Your task to perform on an android device: open chrome privacy settings Image 0: 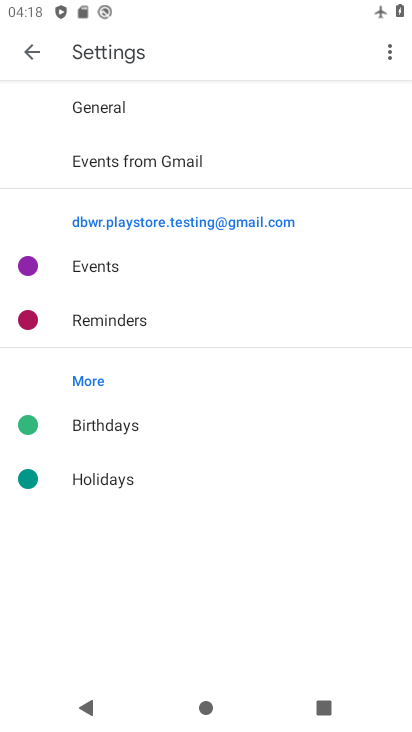
Step 0: press home button
Your task to perform on an android device: open chrome privacy settings Image 1: 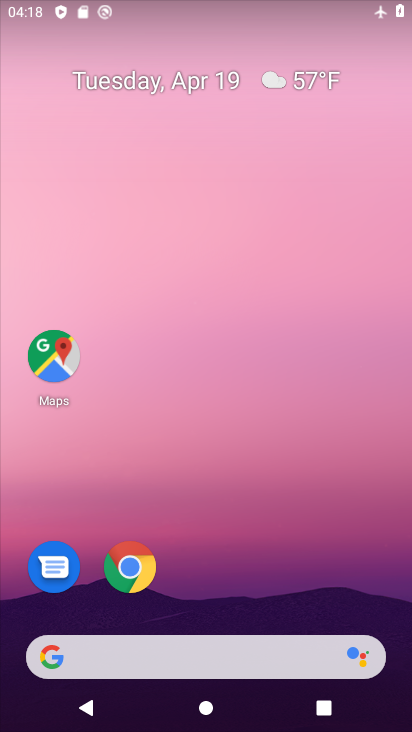
Step 1: drag from (380, 594) to (353, 163)
Your task to perform on an android device: open chrome privacy settings Image 2: 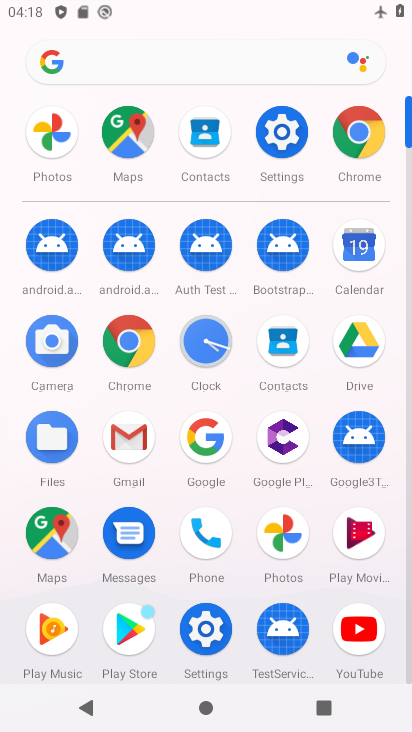
Step 2: click (132, 349)
Your task to perform on an android device: open chrome privacy settings Image 3: 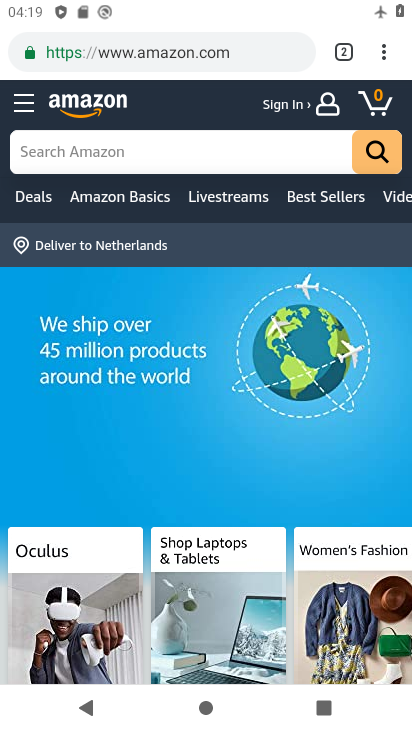
Step 3: click (387, 54)
Your task to perform on an android device: open chrome privacy settings Image 4: 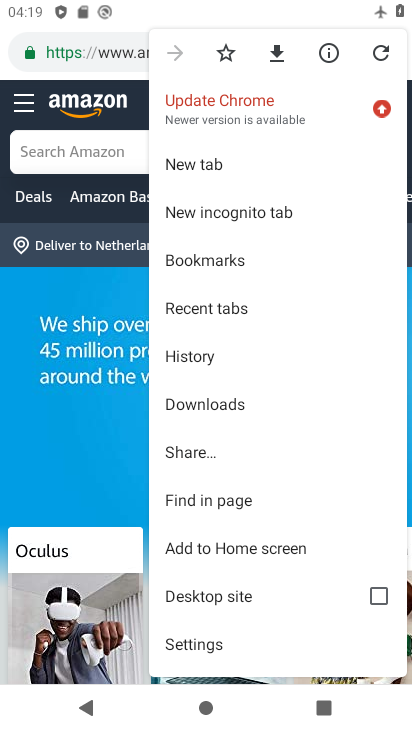
Step 4: drag from (355, 476) to (344, 349)
Your task to perform on an android device: open chrome privacy settings Image 5: 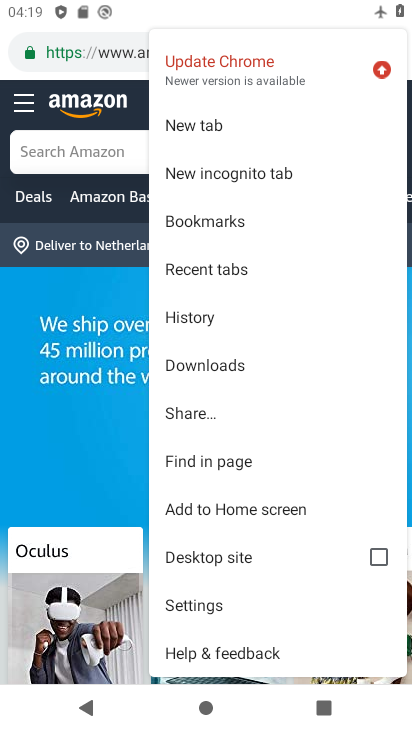
Step 5: click (227, 601)
Your task to perform on an android device: open chrome privacy settings Image 6: 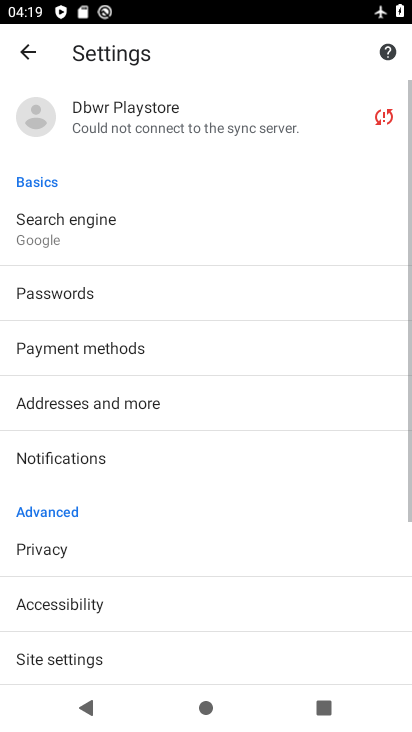
Step 6: drag from (293, 585) to (301, 509)
Your task to perform on an android device: open chrome privacy settings Image 7: 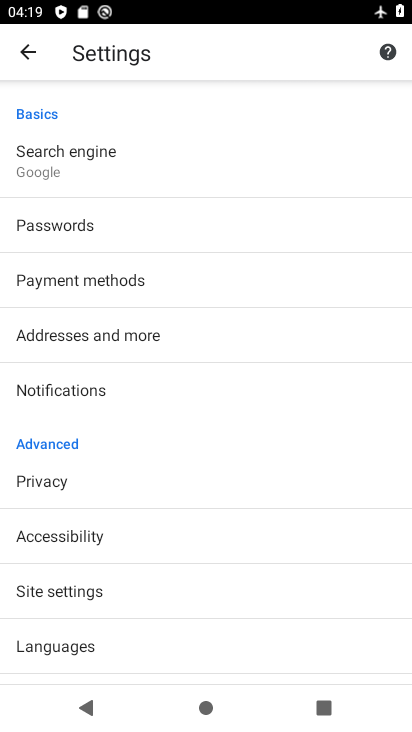
Step 7: drag from (309, 597) to (321, 479)
Your task to perform on an android device: open chrome privacy settings Image 8: 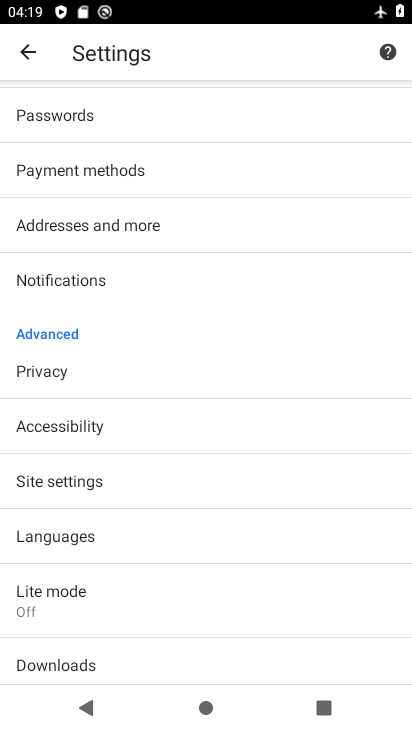
Step 8: drag from (323, 593) to (337, 445)
Your task to perform on an android device: open chrome privacy settings Image 9: 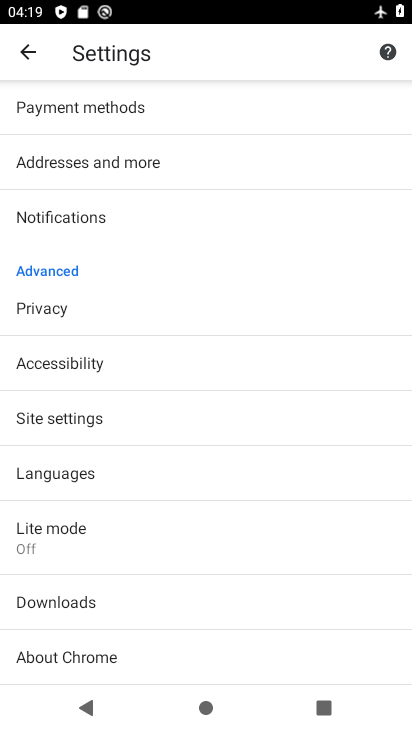
Step 9: drag from (344, 642) to (347, 470)
Your task to perform on an android device: open chrome privacy settings Image 10: 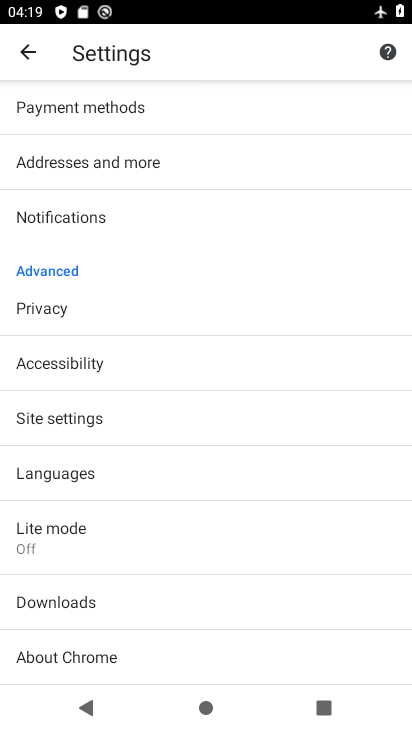
Step 10: drag from (358, 346) to (362, 424)
Your task to perform on an android device: open chrome privacy settings Image 11: 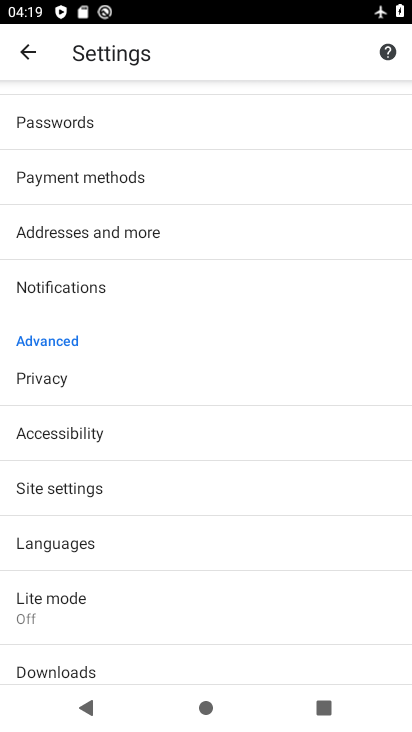
Step 11: drag from (344, 335) to (345, 445)
Your task to perform on an android device: open chrome privacy settings Image 12: 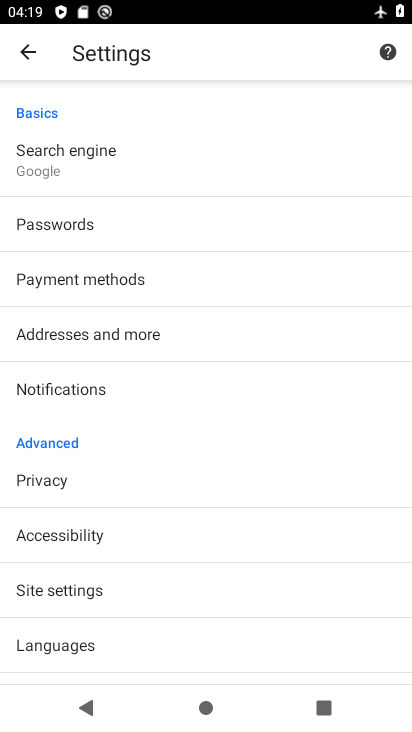
Step 12: drag from (345, 331) to (351, 429)
Your task to perform on an android device: open chrome privacy settings Image 13: 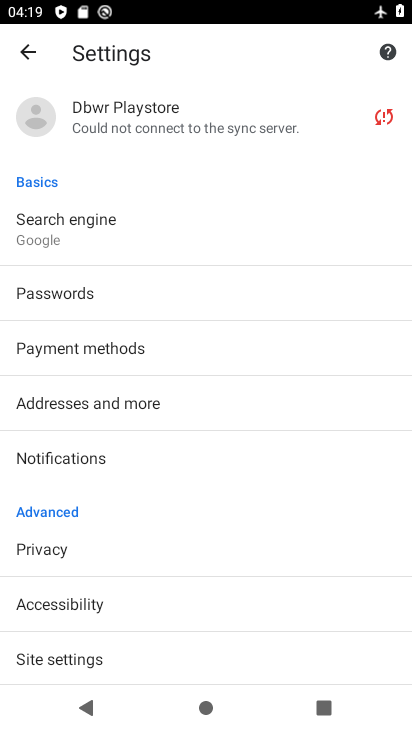
Step 13: drag from (340, 318) to (343, 455)
Your task to perform on an android device: open chrome privacy settings Image 14: 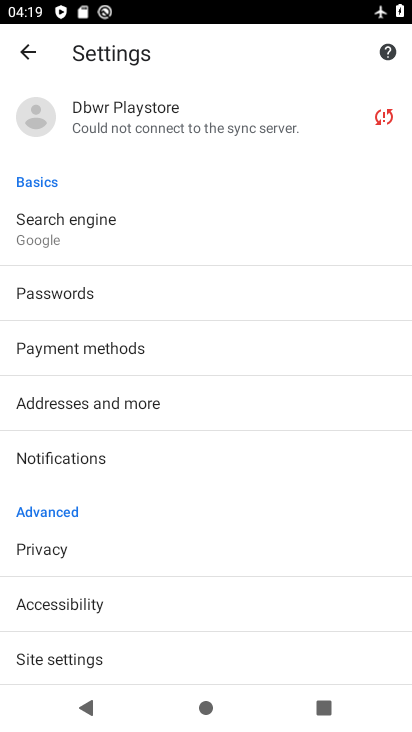
Step 14: drag from (327, 536) to (325, 446)
Your task to perform on an android device: open chrome privacy settings Image 15: 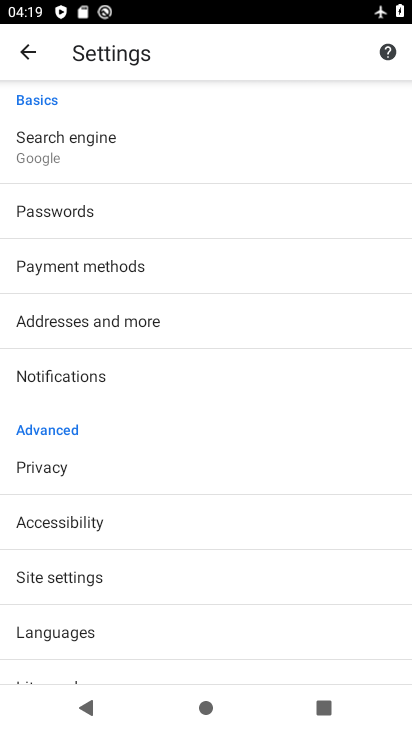
Step 15: drag from (321, 540) to (324, 452)
Your task to perform on an android device: open chrome privacy settings Image 16: 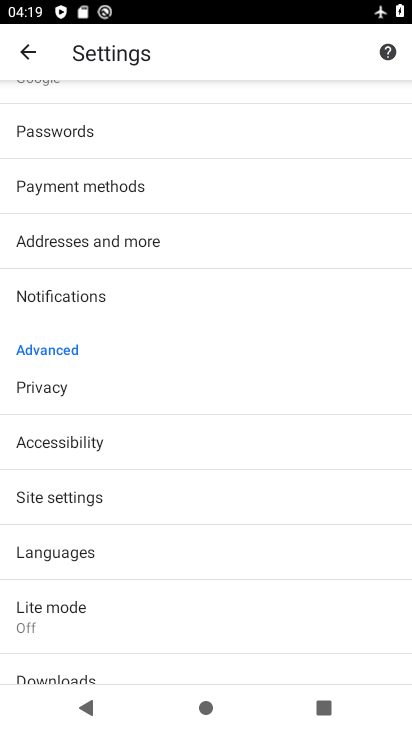
Step 16: click (191, 396)
Your task to perform on an android device: open chrome privacy settings Image 17: 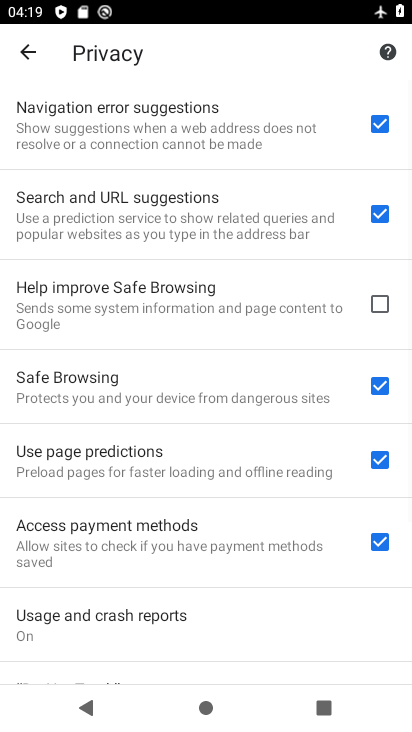
Step 17: task complete